Your task to perform on an android device: Open accessibility settings Image 0: 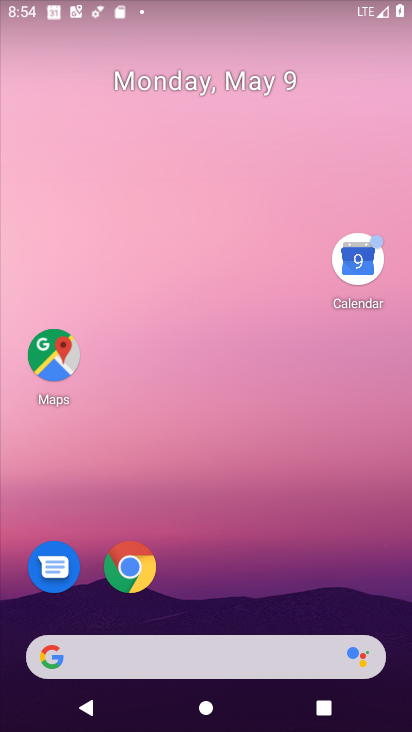
Step 0: drag from (150, 608) to (243, 140)
Your task to perform on an android device: Open accessibility settings Image 1: 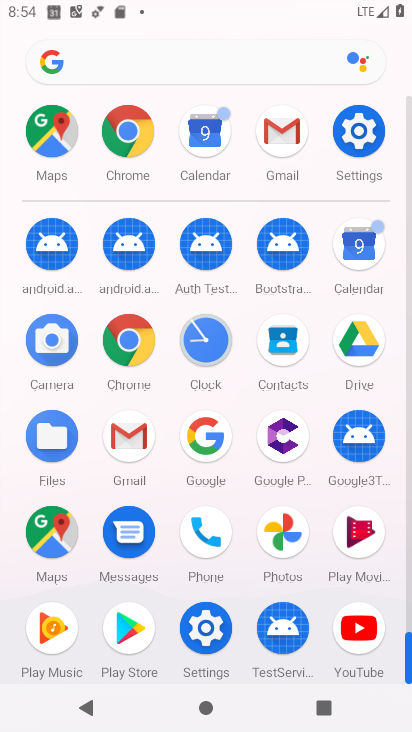
Step 1: drag from (158, 632) to (183, 268)
Your task to perform on an android device: Open accessibility settings Image 2: 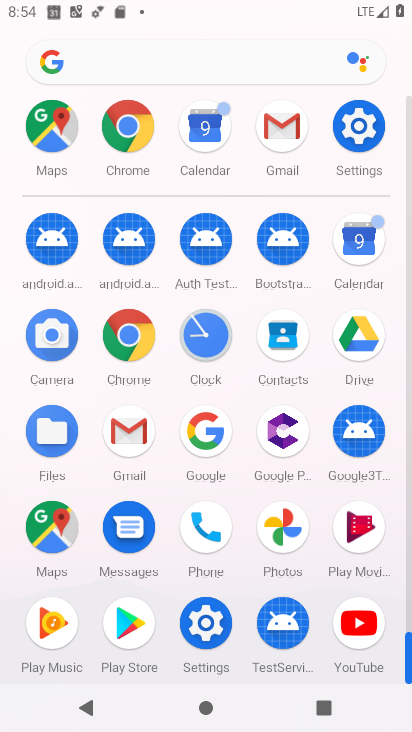
Step 2: click (212, 614)
Your task to perform on an android device: Open accessibility settings Image 3: 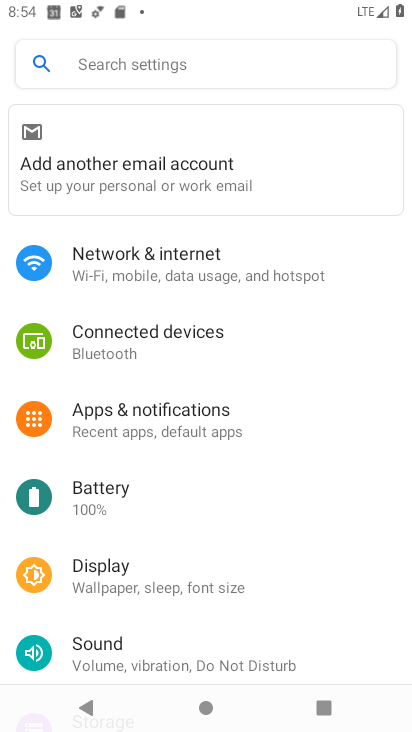
Step 3: drag from (194, 626) to (219, 199)
Your task to perform on an android device: Open accessibility settings Image 4: 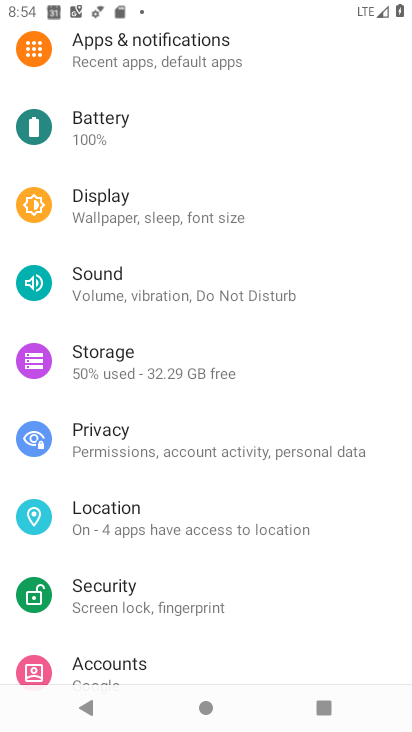
Step 4: drag from (140, 633) to (202, 256)
Your task to perform on an android device: Open accessibility settings Image 5: 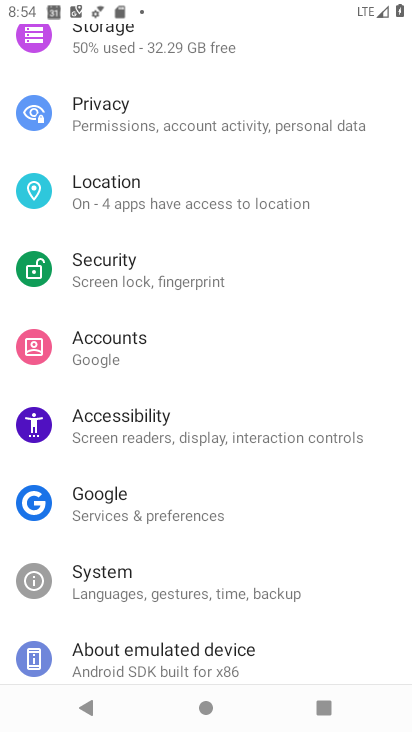
Step 5: click (184, 414)
Your task to perform on an android device: Open accessibility settings Image 6: 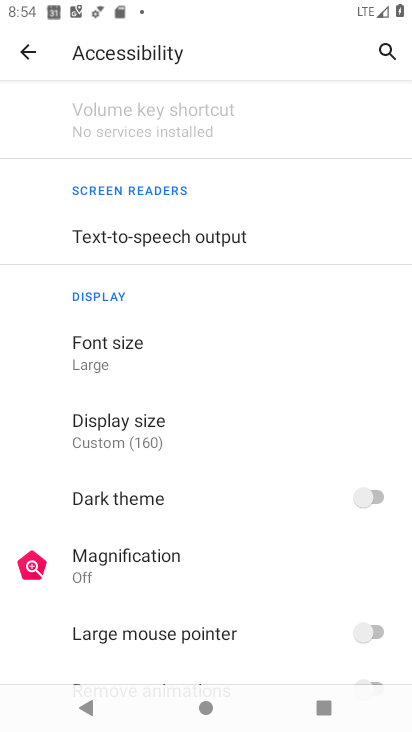
Step 6: task complete